Your task to perform on an android device: turn off data saver in the chrome app Image 0: 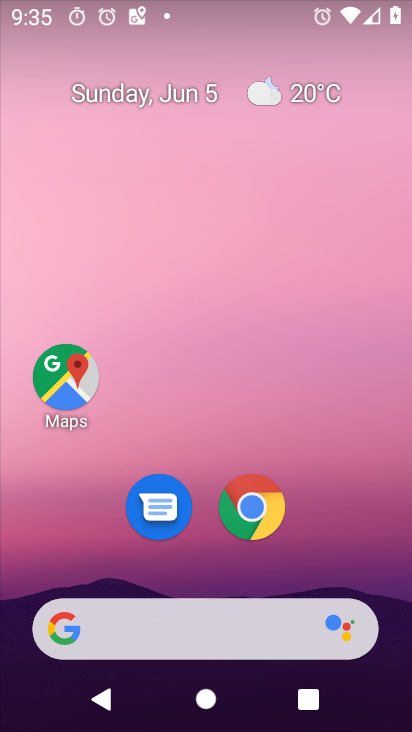
Step 0: drag from (349, 496) to (232, 8)
Your task to perform on an android device: turn off data saver in the chrome app Image 1: 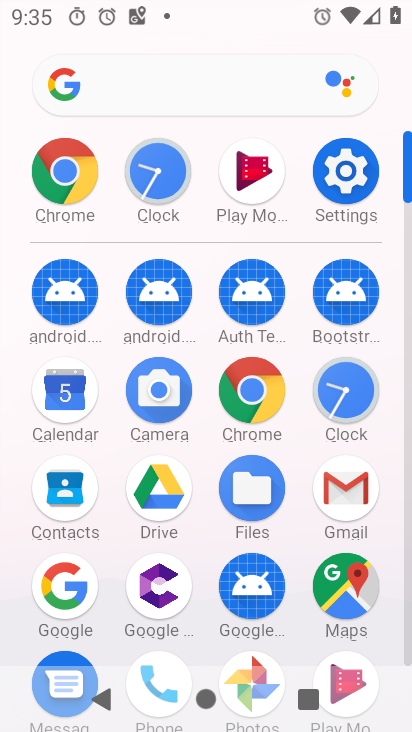
Step 1: drag from (15, 529) to (22, 182)
Your task to perform on an android device: turn off data saver in the chrome app Image 2: 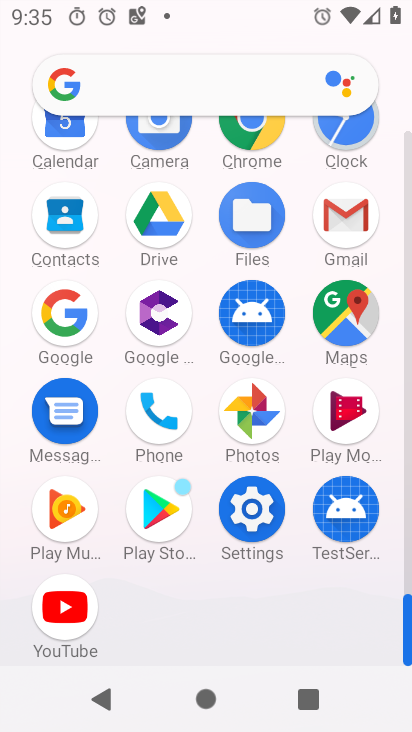
Step 2: drag from (4, 199) to (7, 492)
Your task to perform on an android device: turn off data saver in the chrome app Image 3: 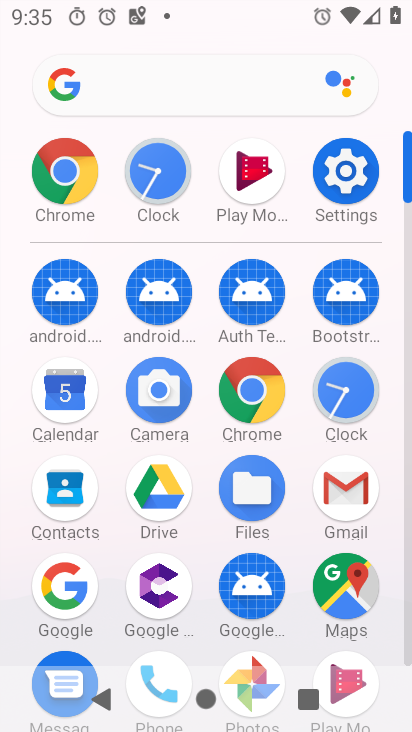
Step 3: click (251, 384)
Your task to perform on an android device: turn off data saver in the chrome app Image 4: 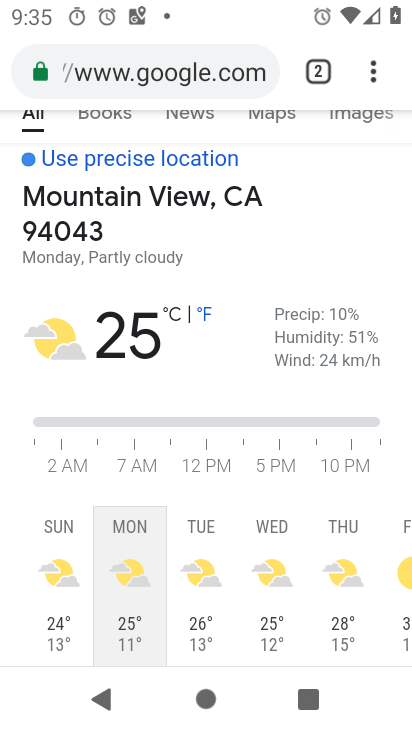
Step 4: drag from (373, 74) to (141, 502)
Your task to perform on an android device: turn off data saver in the chrome app Image 5: 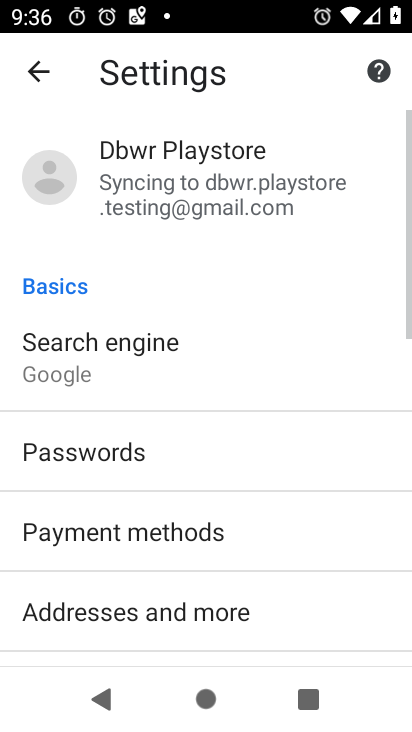
Step 5: drag from (231, 560) to (228, 166)
Your task to perform on an android device: turn off data saver in the chrome app Image 6: 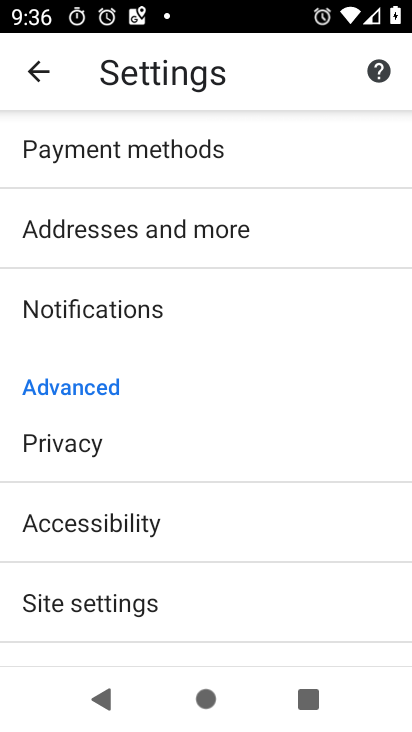
Step 6: drag from (207, 566) to (248, 144)
Your task to perform on an android device: turn off data saver in the chrome app Image 7: 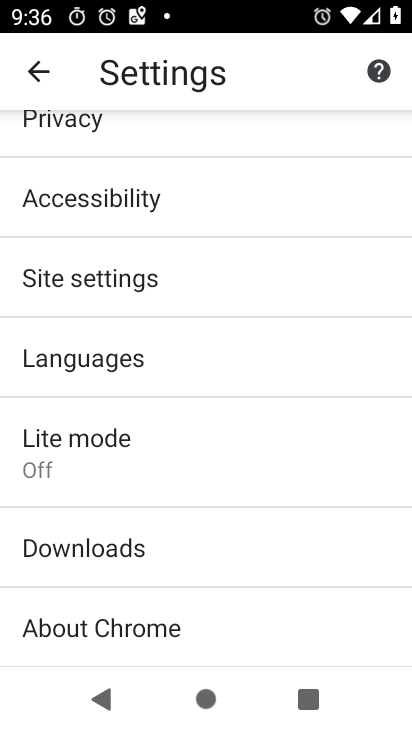
Step 7: click (143, 463)
Your task to perform on an android device: turn off data saver in the chrome app Image 8: 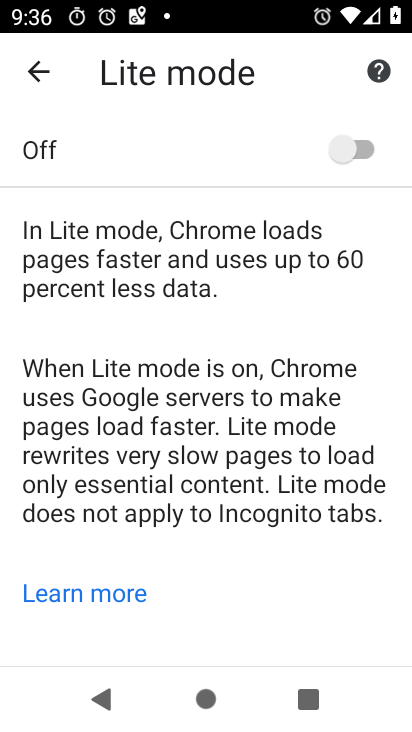
Step 8: task complete